Your task to perform on an android device: Open Yahoo.com Image 0: 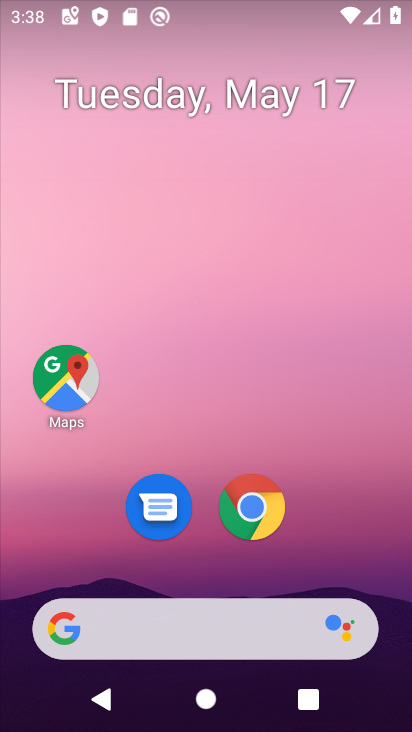
Step 0: click (252, 508)
Your task to perform on an android device: Open Yahoo.com Image 1: 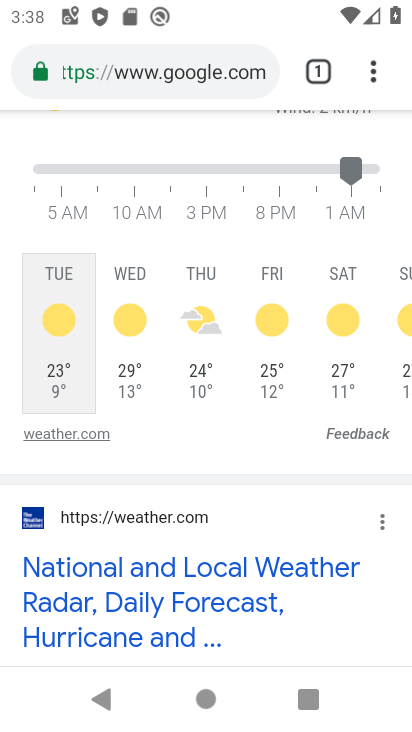
Step 1: drag from (210, 231) to (191, 615)
Your task to perform on an android device: Open Yahoo.com Image 2: 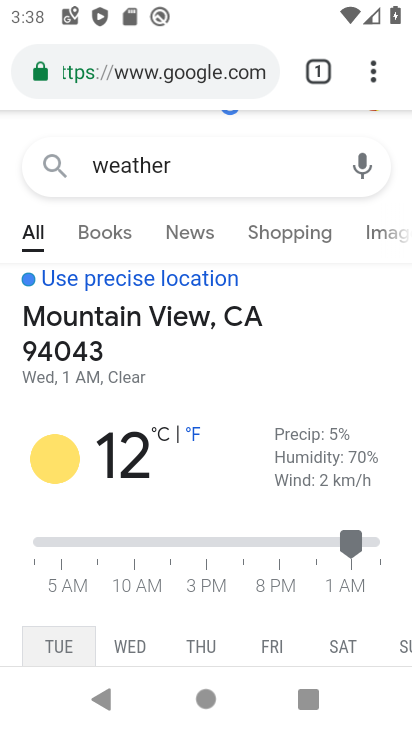
Step 2: click (191, 71)
Your task to perform on an android device: Open Yahoo.com Image 3: 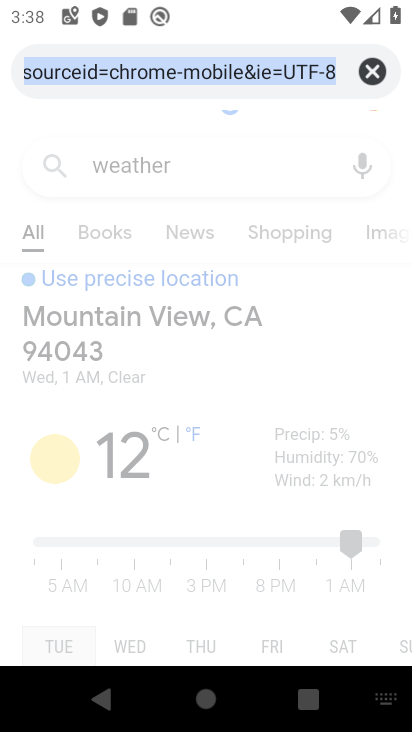
Step 3: type "yahoo.com"
Your task to perform on an android device: Open Yahoo.com Image 4: 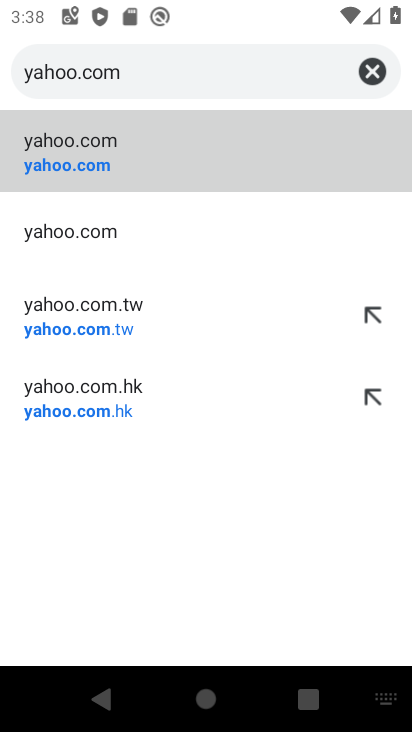
Step 4: click (76, 158)
Your task to perform on an android device: Open Yahoo.com Image 5: 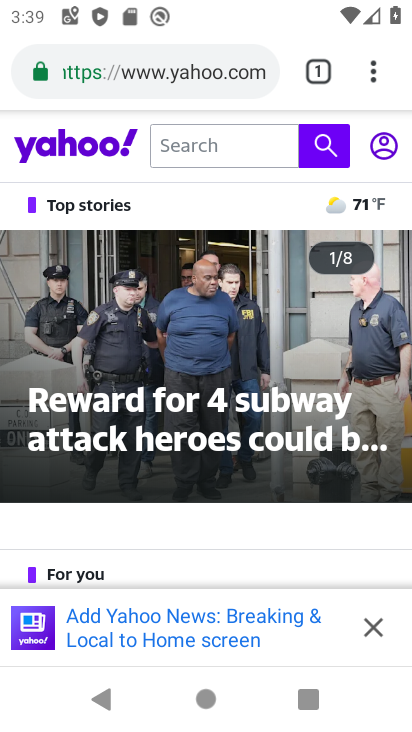
Step 5: task complete